Your task to perform on an android device: Do I have any events this weekend? Image 0: 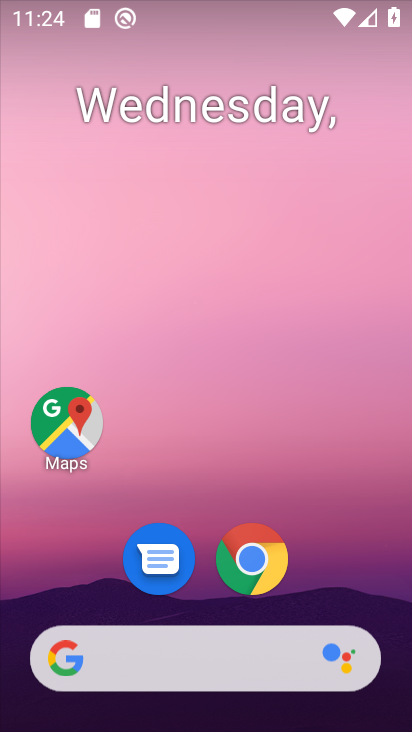
Step 0: drag from (340, 549) to (275, 74)
Your task to perform on an android device: Do I have any events this weekend? Image 1: 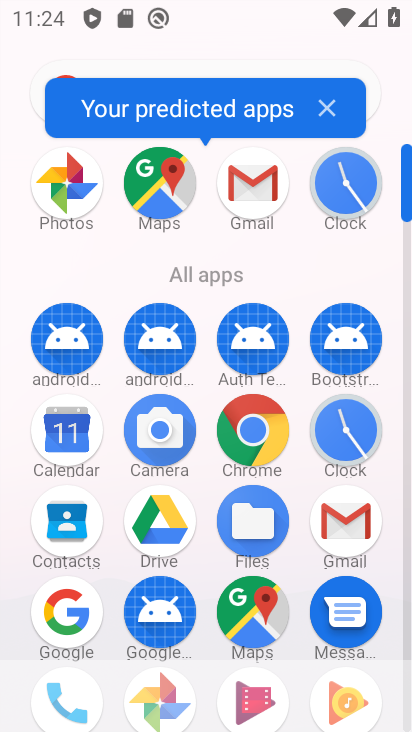
Step 1: click (60, 430)
Your task to perform on an android device: Do I have any events this weekend? Image 2: 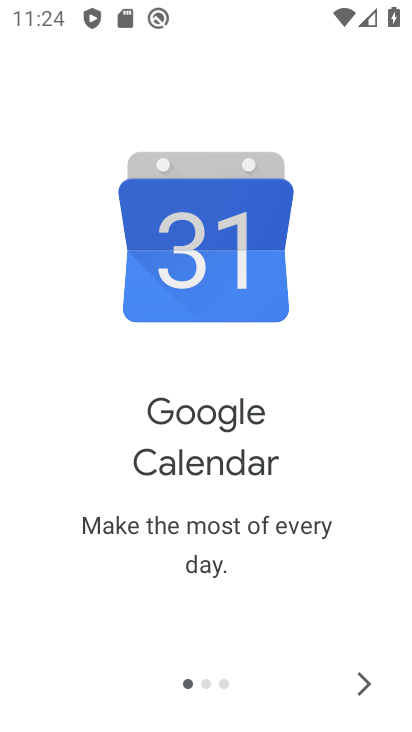
Step 2: click (363, 682)
Your task to perform on an android device: Do I have any events this weekend? Image 3: 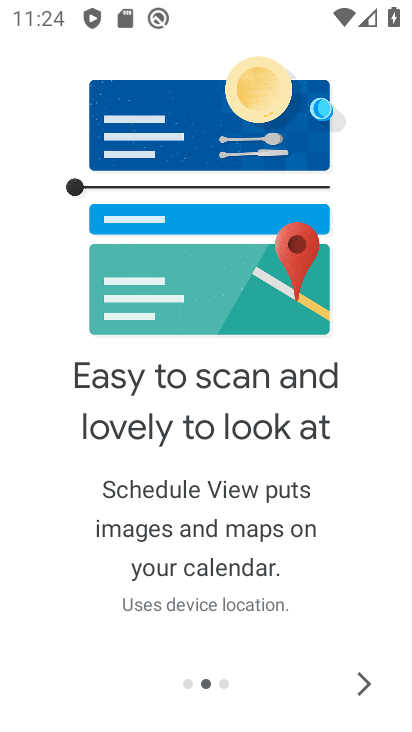
Step 3: click (362, 682)
Your task to perform on an android device: Do I have any events this weekend? Image 4: 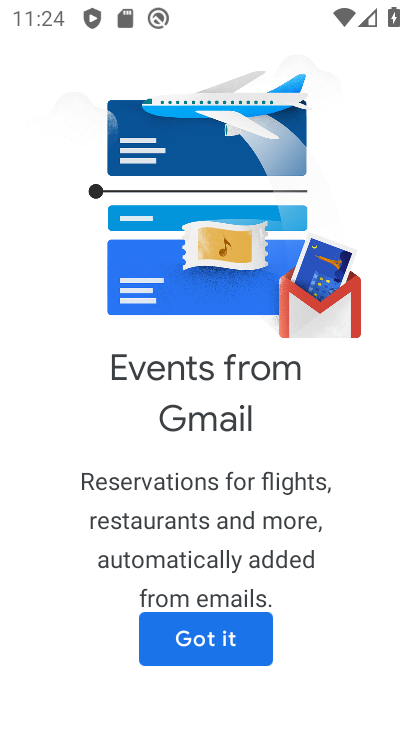
Step 4: click (244, 645)
Your task to perform on an android device: Do I have any events this weekend? Image 5: 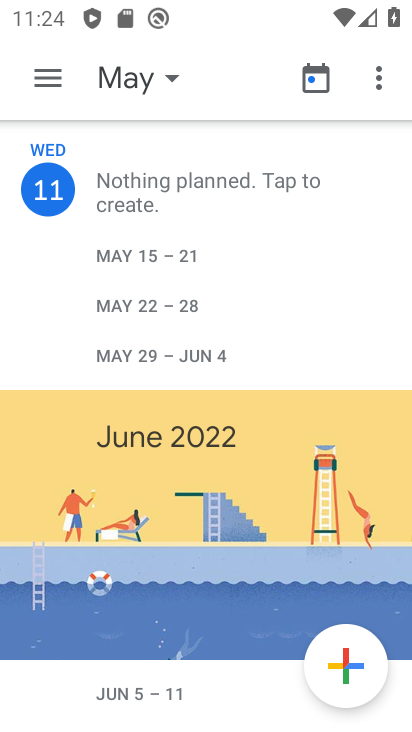
Step 5: click (170, 78)
Your task to perform on an android device: Do I have any events this weekend? Image 6: 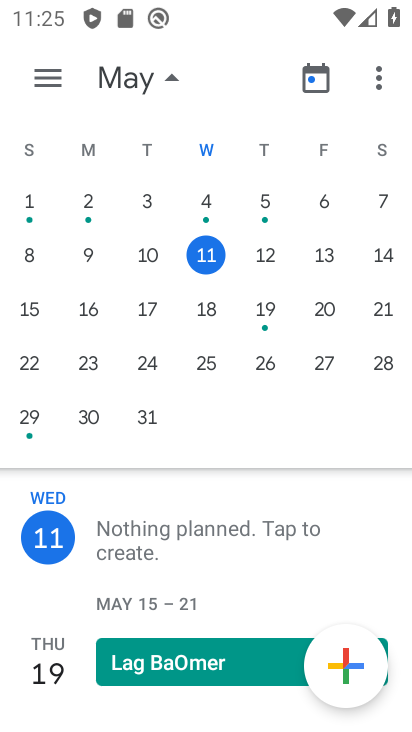
Step 6: task complete